Your task to perform on an android device: turn smart compose on in the gmail app Image 0: 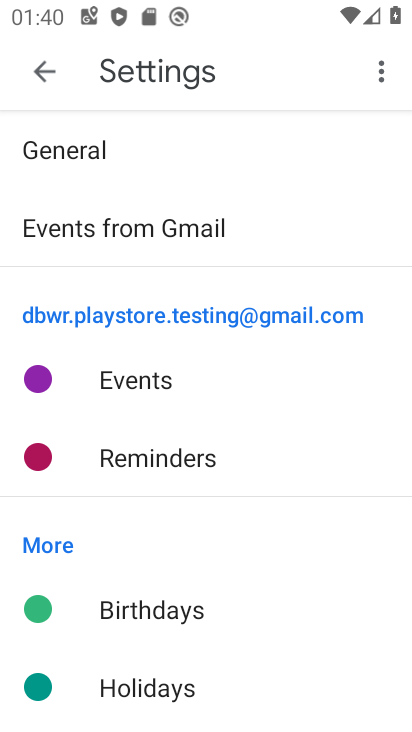
Step 0: press home button
Your task to perform on an android device: turn smart compose on in the gmail app Image 1: 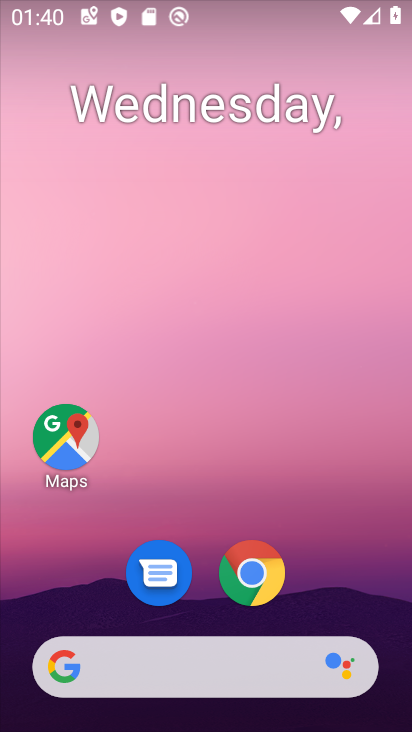
Step 1: drag from (342, 579) to (234, 43)
Your task to perform on an android device: turn smart compose on in the gmail app Image 2: 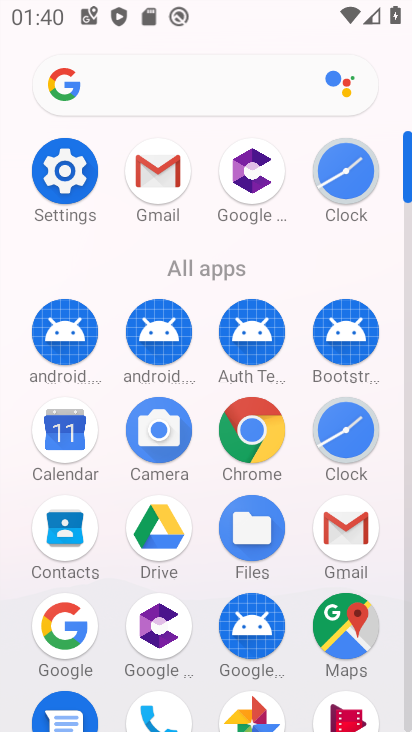
Step 2: click (158, 171)
Your task to perform on an android device: turn smart compose on in the gmail app Image 3: 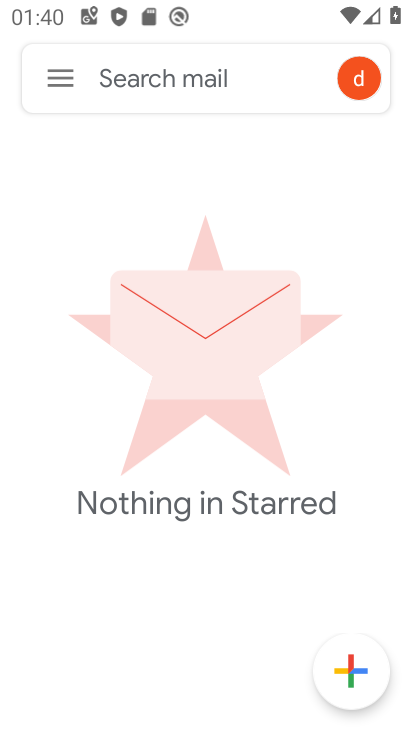
Step 3: click (61, 73)
Your task to perform on an android device: turn smart compose on in the gmail app Image 4: 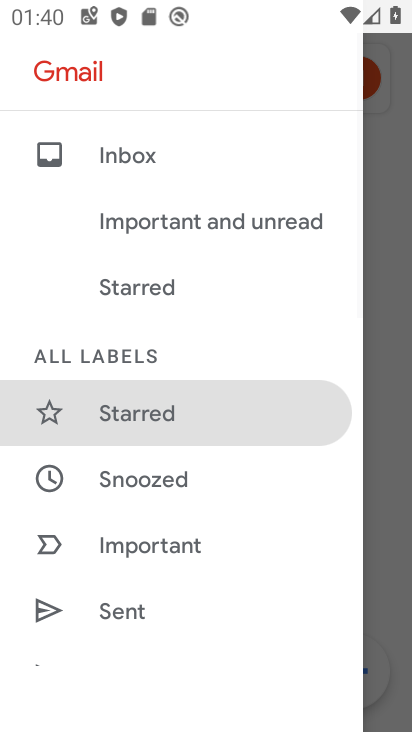
Step 4: drag from (142, 588) to (157, 410)
Your task to perform on an android device: turn smart compose on in the gmail app Image 5: 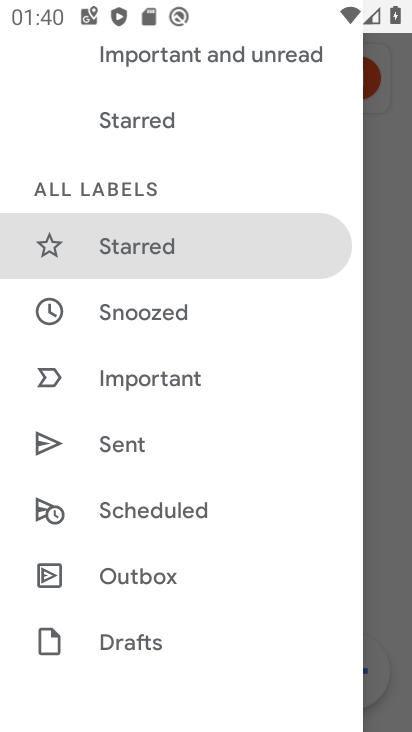
Step 5: drag from (150, 586) to (187, 420)
Your task to perform on an android device: turn smart compose on in the gmail app Image 6: 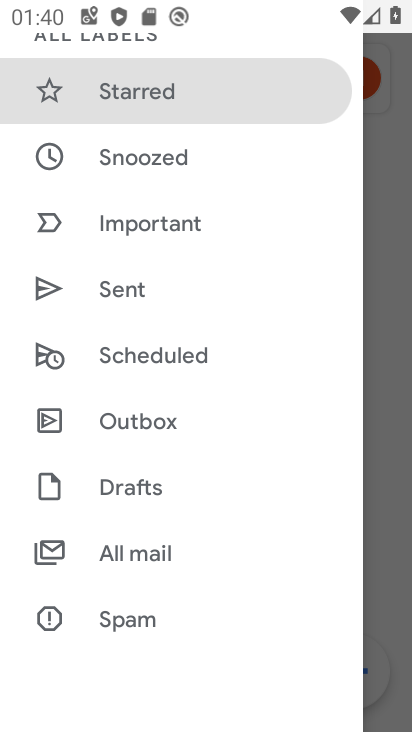
Step 6: drag from (145, 593) to (190, 466)
Your task to perform on an android device: turn smart compose on in the gmail app Image 7: 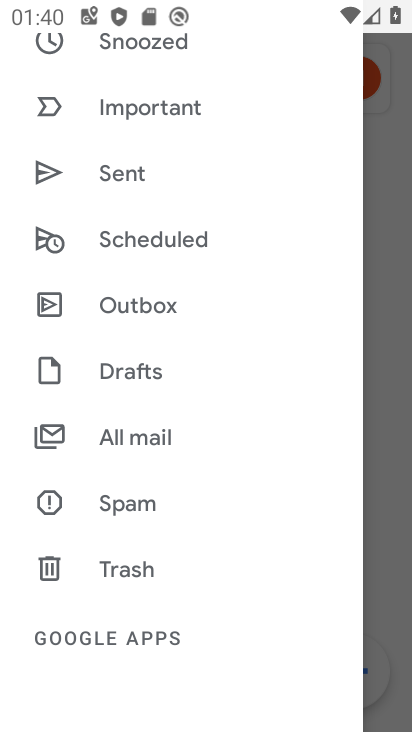
Step 7: drag from (125, 634) to (199, 457)
Your task to perform on an android device: turn smart compose on in the gmail app Image 8: 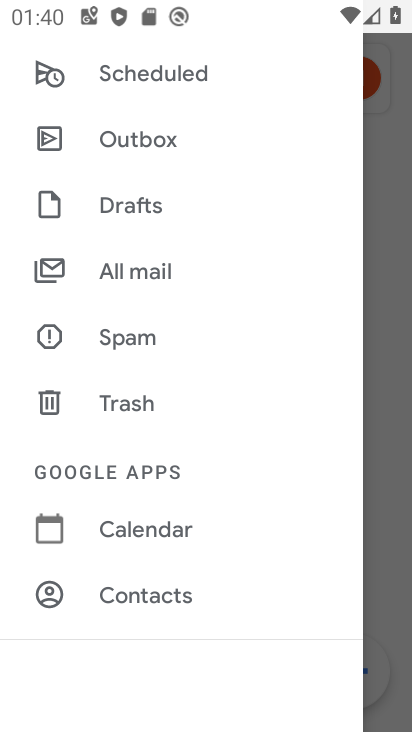
Step 8: drag from (118, 652) to (204, 504)
Your task to perform on an android device: turn smart compose on in the gmail app Image 9: 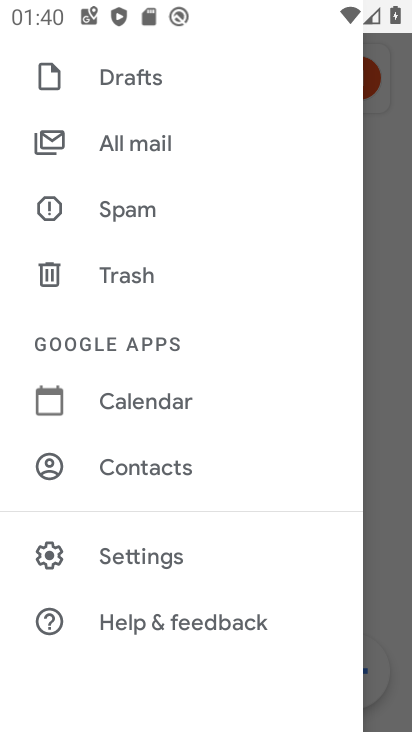
Step 9: click (153, 560)
Your task to perform on an android device: turn smart compose on in the gmail app Image 10: 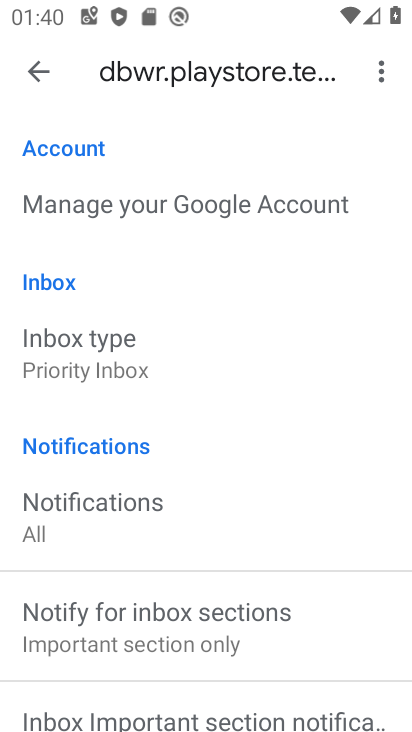
Step 10: task complete